Your task to perform on an android device: read, delete, or share a saved page in the chrome app Image 0: 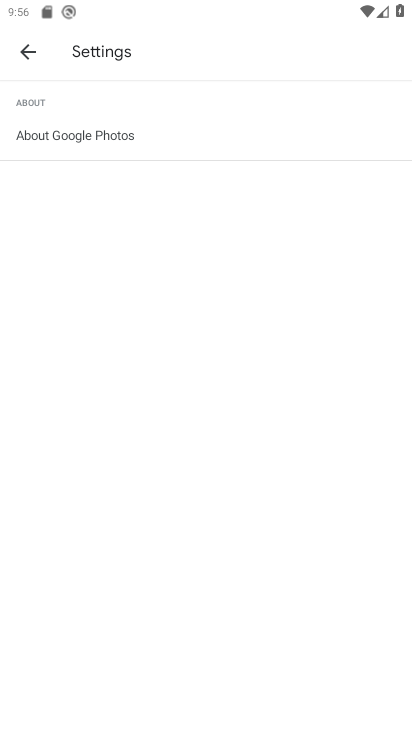
Step 0: press home button
Your task to perform on an android device: read, delete, or share a saved page in the chrome app Image 1: 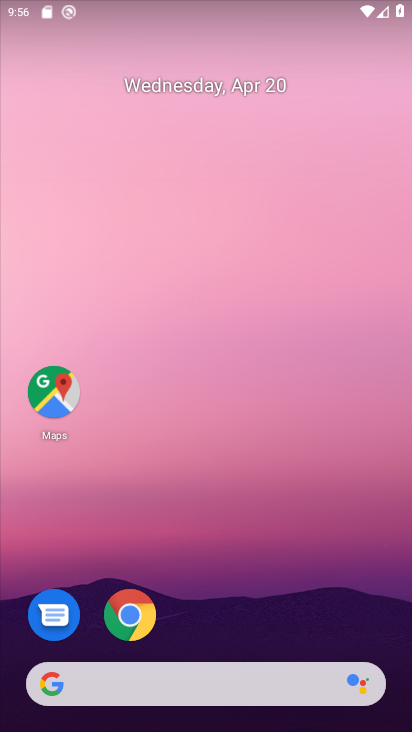
Step 1: drag from (359, 581) to (350, 121)
Your task to perform on an android device: read, delete, or share a saved page in the chrome app Image 2: 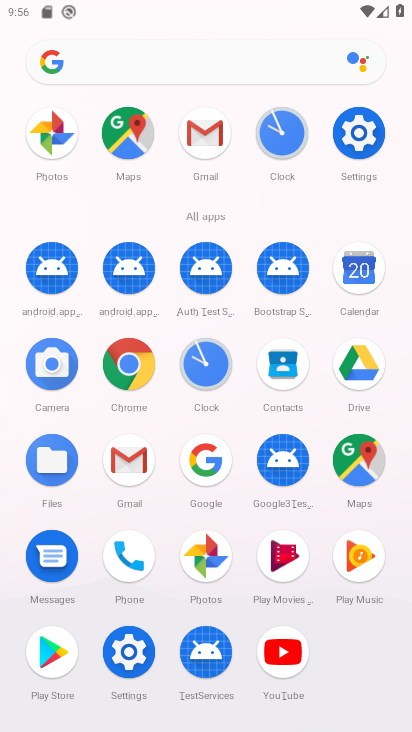
Step 2: click (106, 377)
Your task to perform on an android device: read, delete, or share a saved page in the chrome app Image 3: 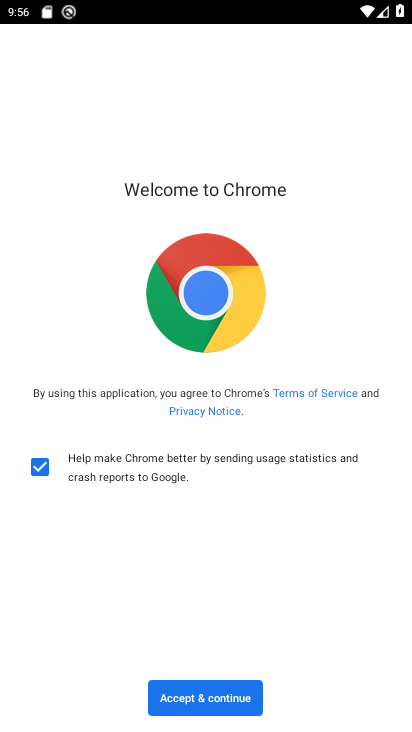
Step 3: click (163, 699)
Your task to perform on an android device: read, delete, or share a saved page in the chrome app Image 4: 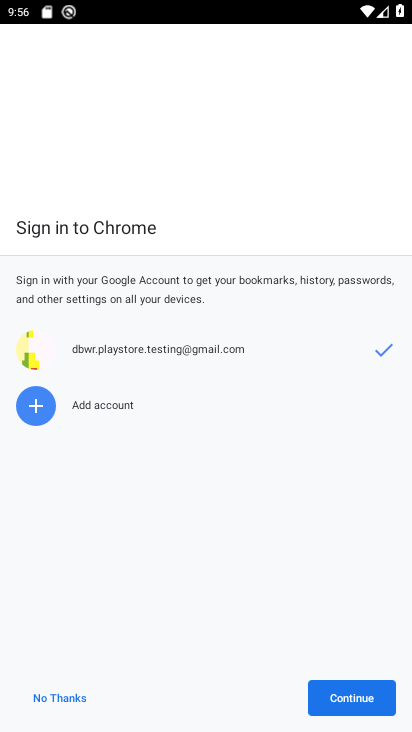
Step 4: click (338, 709)
Your task to perform on an android device: read, delete, or share a saved page in the chrome app Image 5: 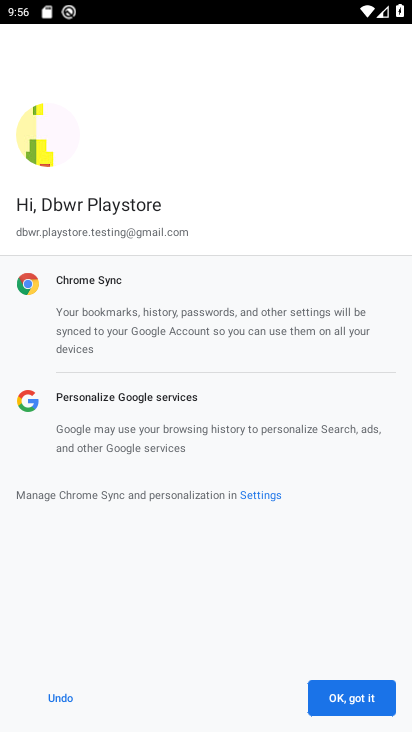
Step 5: click (332, 705)
Your task to perform on an android device: read, delete, or share a saved page in the chrome app Image 6: 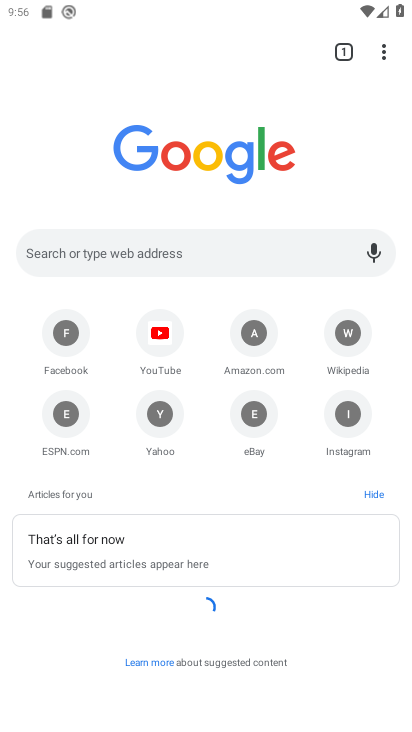
Step 6: task complete